Your task to perform on an android device: empty trash in the gmail app Image 0: 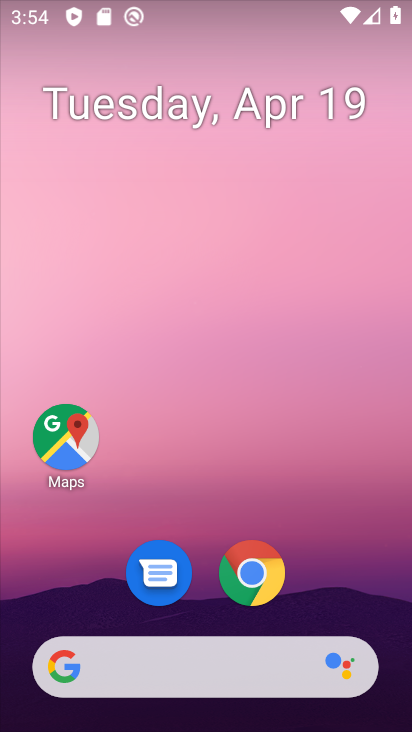
Step 0: drag from (232, 330) to (265, 168)
Your task to perform on an android device: empty trash in the gmail app Image 1: 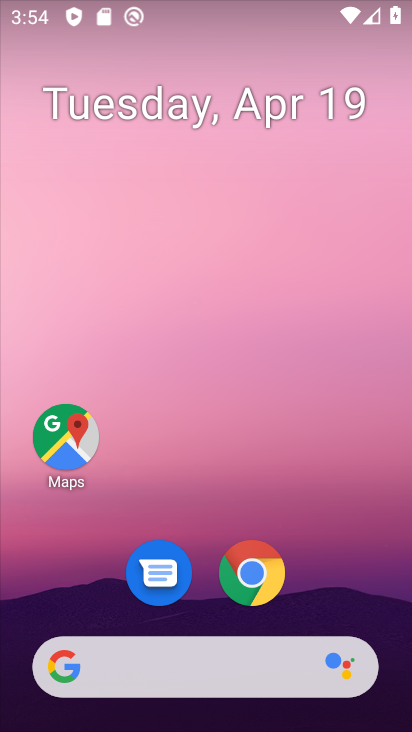
Step 1: drag from (236, 424) to (298, 110)
Your task to perform on an android device: empty trash in the gmail app Image 2: 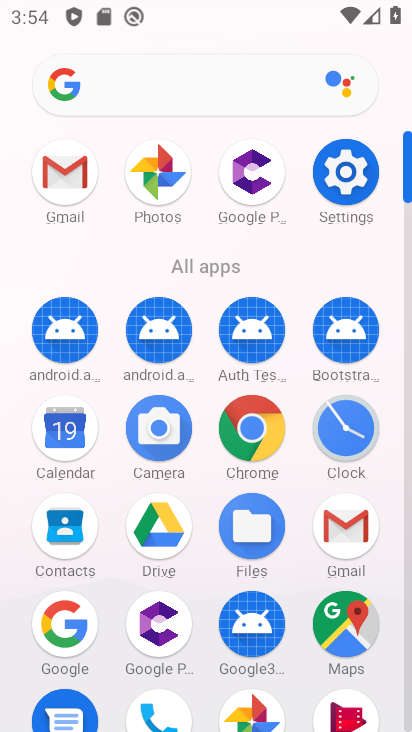
Step 2: click (350, 533)
Your task to perform on an android device: empty trash in the gmail app Image 3: 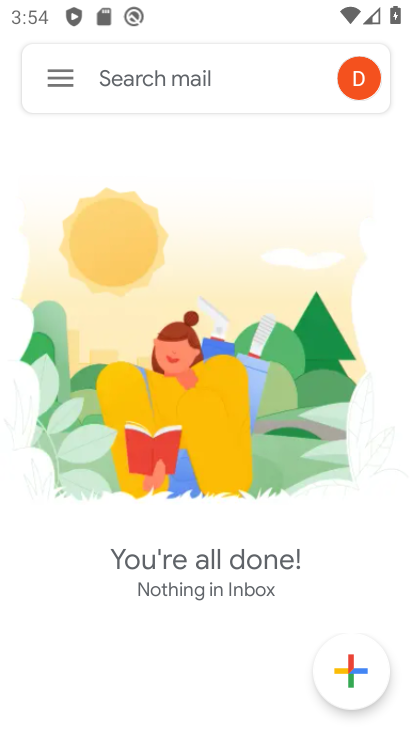
Step 3: click (81, 76)
Your task to perform on an android device: empty trash in the gmail app Image 4: 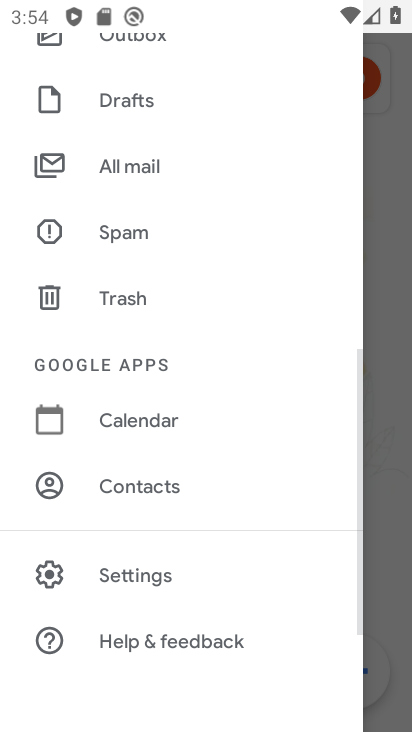
Step 4: drag from (210, 173) to (189, 581)
Your task to perform on an android device: empty trash in the gmail app Image 5: 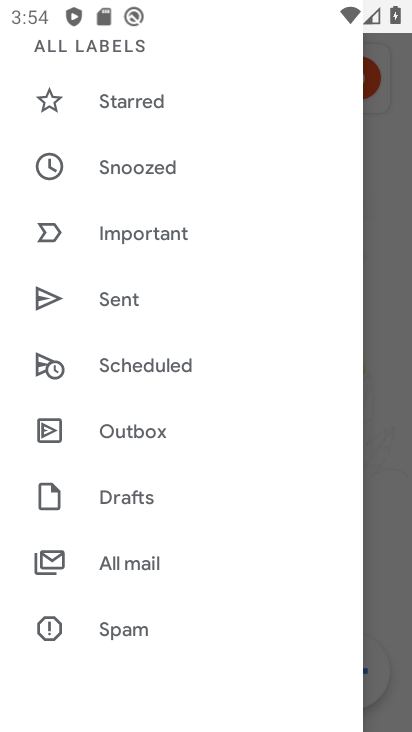
Step 5: drag from (156, 487) to (220, 368)
Your task to perform on an android device: empty trash in the gmail app Image 6: 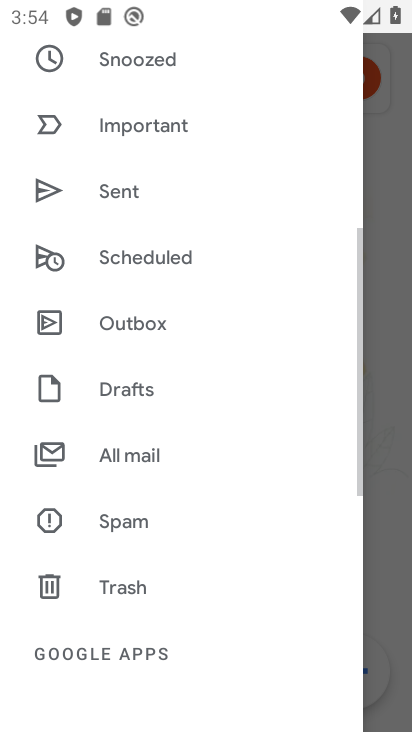
Step 6: click (152, 595)
Your task to perform on an android device: empty trash in the gmail app Image 7: 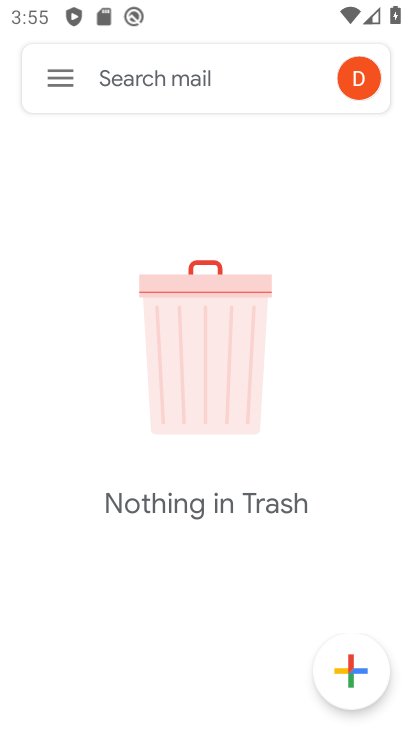
Step 7: task complete